Your task to perform on an android device: Is it going to rain tomorrow? Image 0: 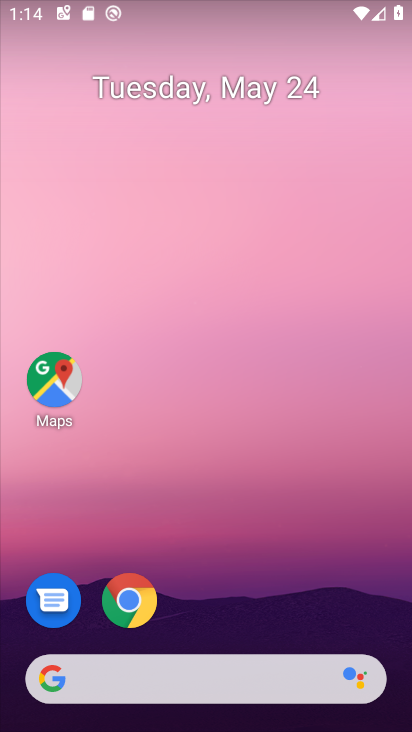
Step 0: drag from (197, 621) to (218, 184)
Your task to perform on an android device: Is it going to rain tomorrow? Image 1: 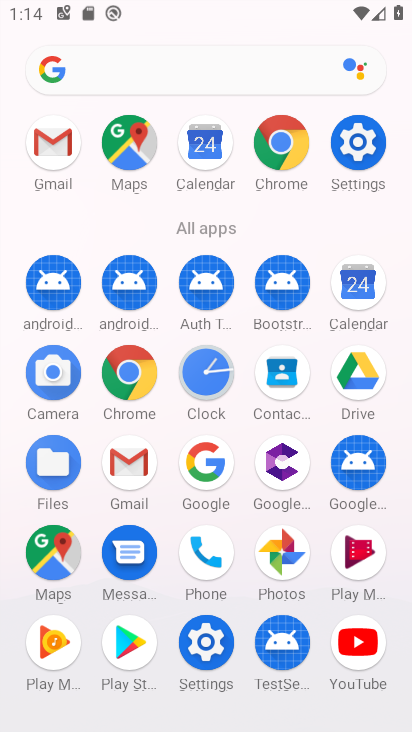
Step 1: click (181, 464)
Your task to perform on an android device: Is it going to rain tomorrow? Image 2: 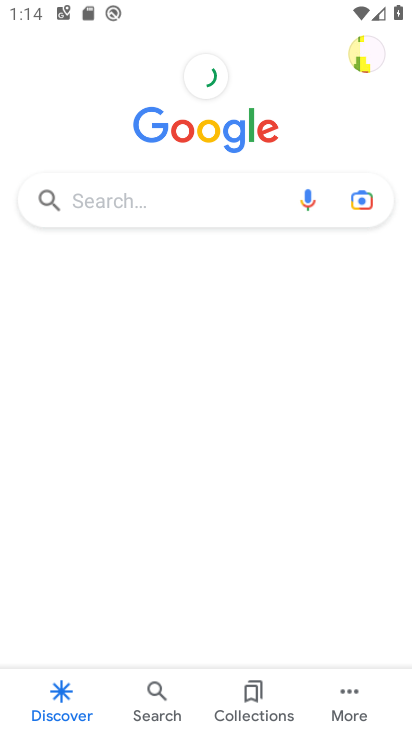
Step 2: click (177, 201)
Your task to perform on an android device: Is it going to rain tomorrow? Image 3: 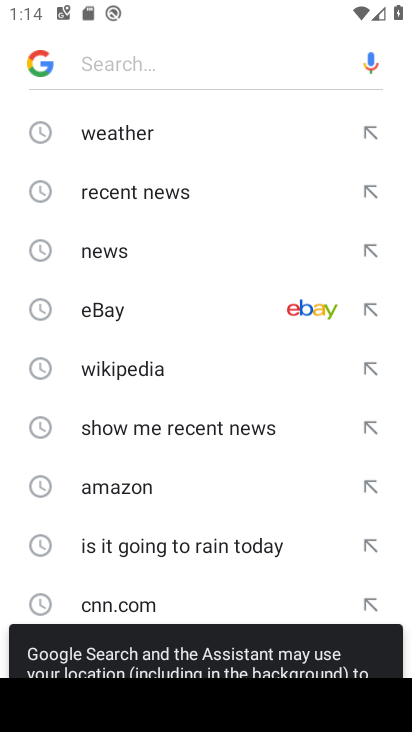
Step 3: click (121, 141)
Your task to perform on an android device: Is it going to rain tomorrow? Image 4: 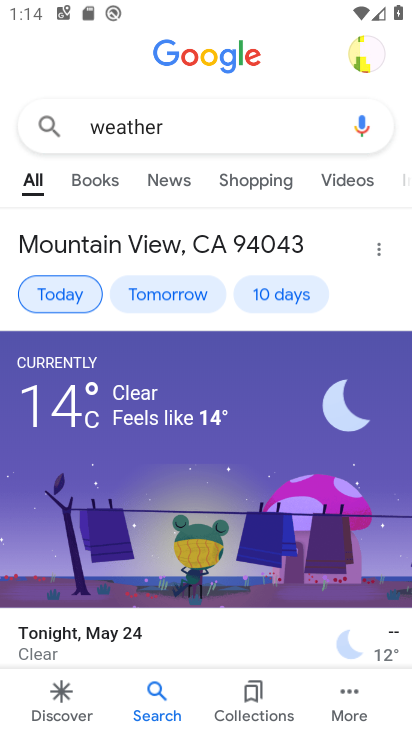
Step 4: click (173, 304)
Your task to perform on an android device: Is it going to rain tomorrow? Image 5: 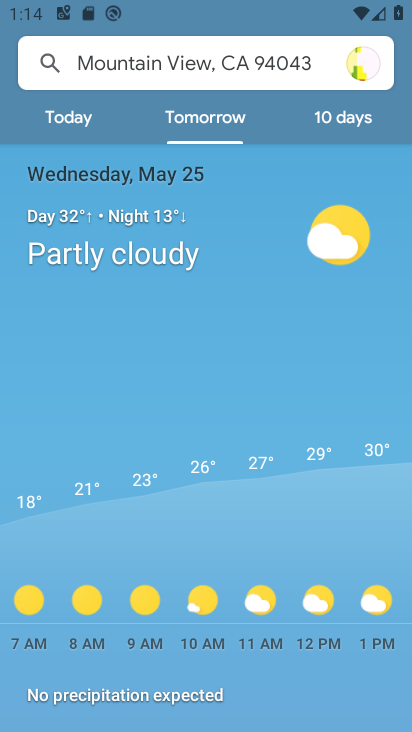
Step 5: task complete